Your task to perform on an android device: Show me productivity apps on the Play Store Image 0: 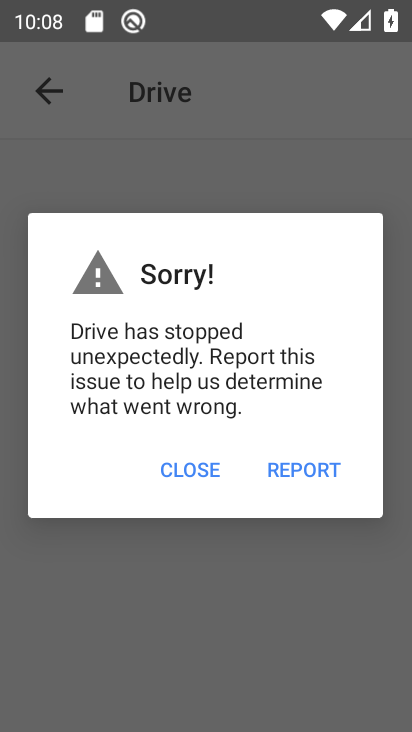
Step 0: press home button
Your task to perform on an android device: Show me productivity apps on the Play Store Image 1: 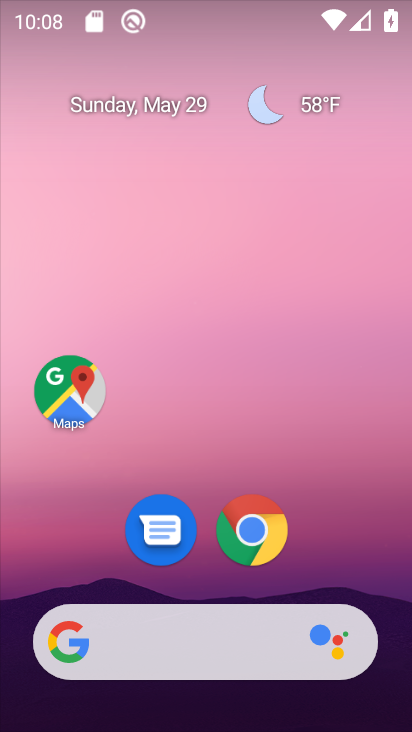
Step 1: drag from (167, 635) to (277, 69)
Your task to perform on an android device: Show me productivity apps on the Play Store Image 2: 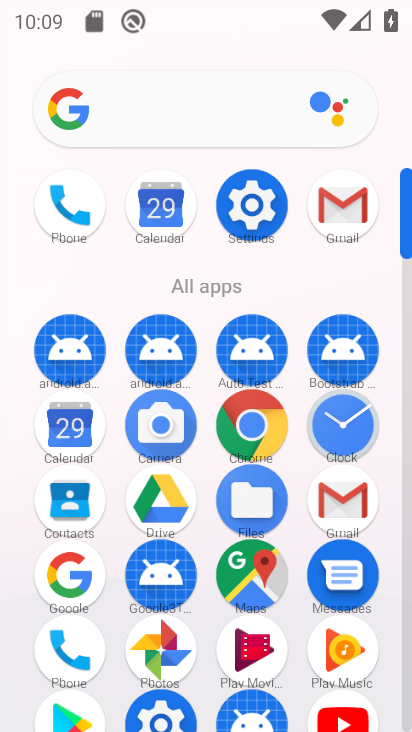
Step 2: drag from (206, 625) to (238, 140)
Your task to perform on an android device: Show me productivity apps on the Play Store Image 3: 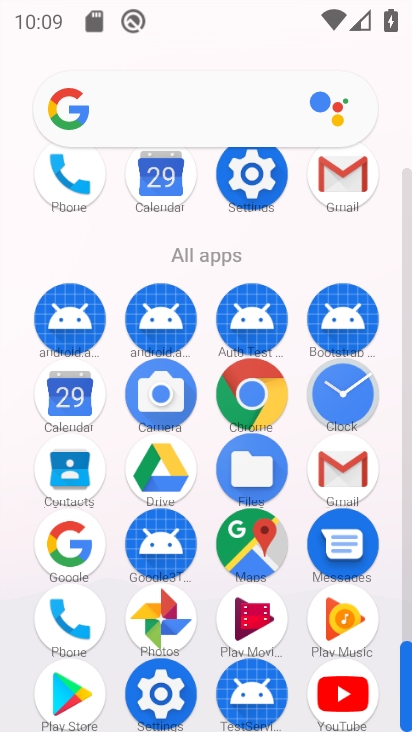
Step 3: click (74, 683)
Your task to perform on an android device: Show me productivity apps on the Play Store Image 4: 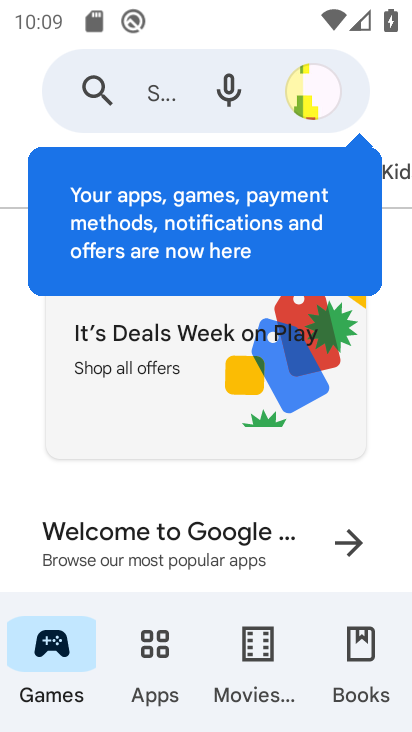
Step 4: click (151, 646)
Your task to perform on an android device: Show me productivity apps on the Play Store Image 5: 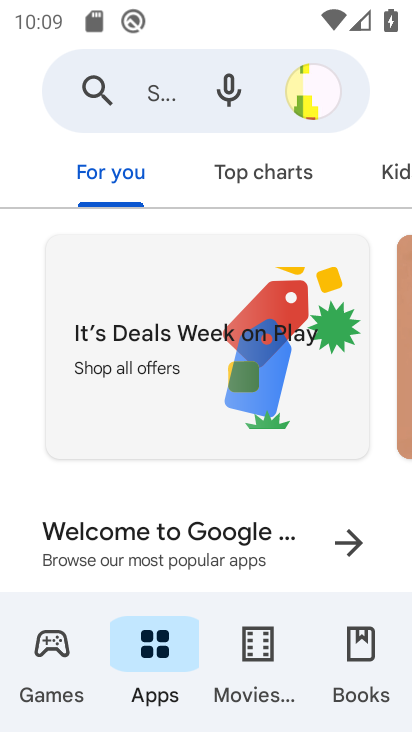
Step 5: drag from (375, 189) to (146, 215)
Your task to perform on an android device: Show me productivity apps on the Play Store Image 6: 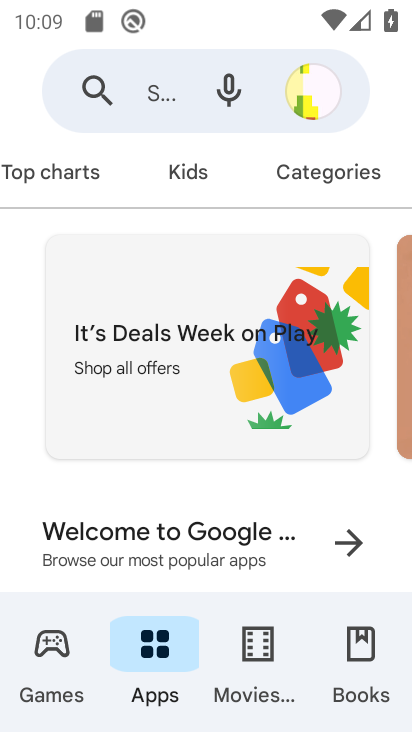
Step 6: click (330, 166)
Your task to perform on an android device: Show me productivity apps on the Play Store Image 7: 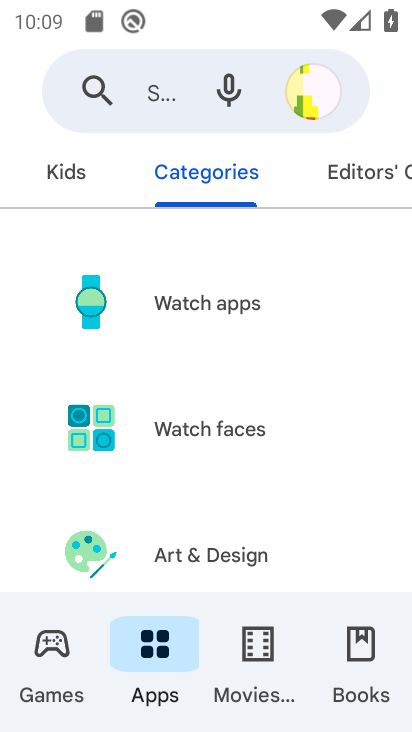
Step 7: drag from (215, 467) to (174, 26)
Your task to perform on an android device: Show me productivity apps on the Play Store Image 8: 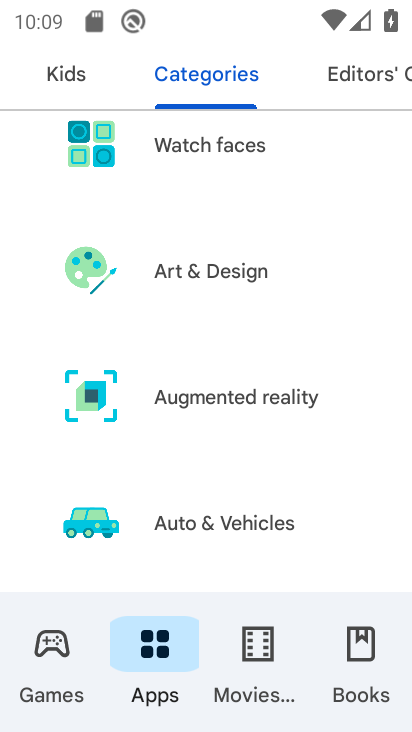
Step 8: drag from (172, 523) to (175, 20)
Your task to perform on an android device: Show me productivity apps on the Play Store Image 9: 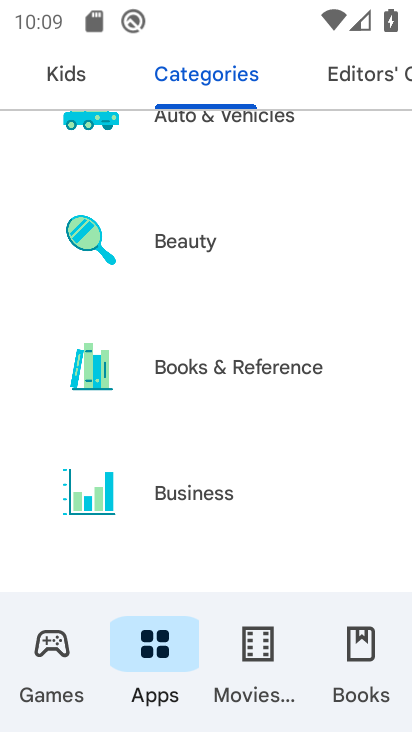
Step 9: drag from (188, 544) to (281, 9)
Your task to perform on an android device: Show me productivity apps on the Play Store Image 10: 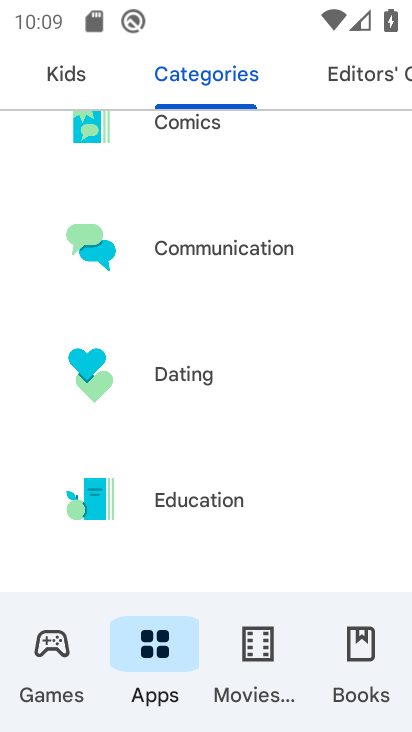
Step 10: drag from (157, 511) to (204, 0)
Your task to perform on an android device: Show me productivity apps on the Play Store Image 11: 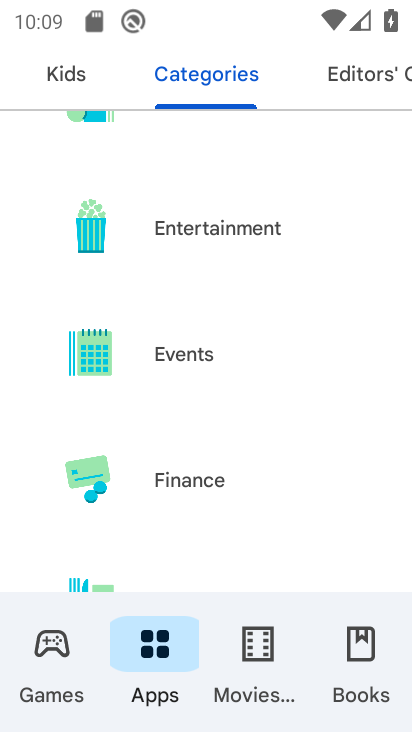
Step 11: drag from (176, 509) to (206, 34)
Your task to perform on an android device: Show me productivity apps on the Play Store Image 12: 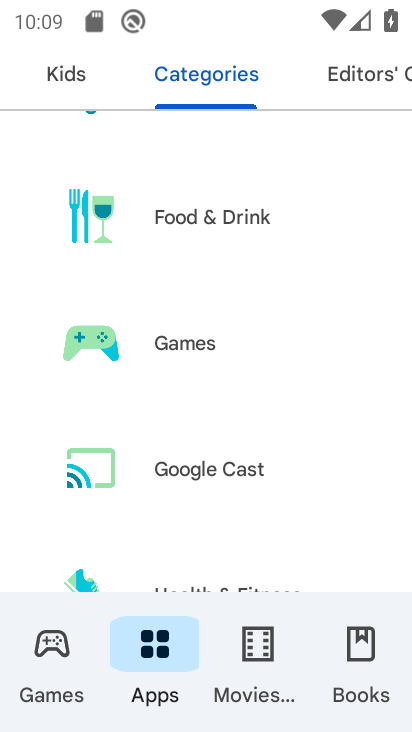
Step 12: drag from (174, 483) to (158, 8)
Your task to perform on an android device: Show me productivity apps on the Play Store Image 13: 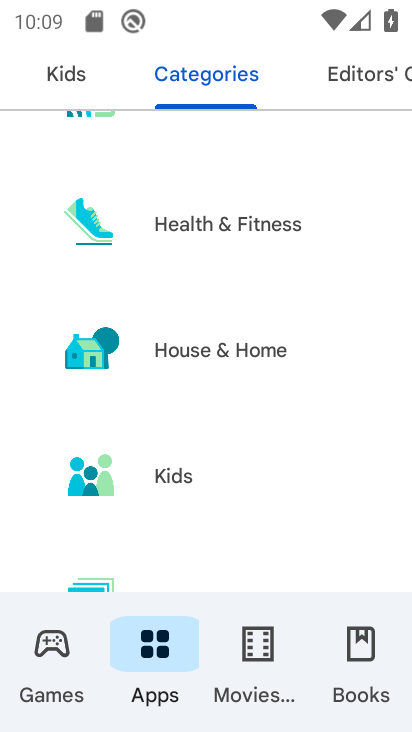
Step 13: drag from (166, 504) to (86, 20)
Your task to perform on an android device: Show me productivity apps on the Play Store Image 14: 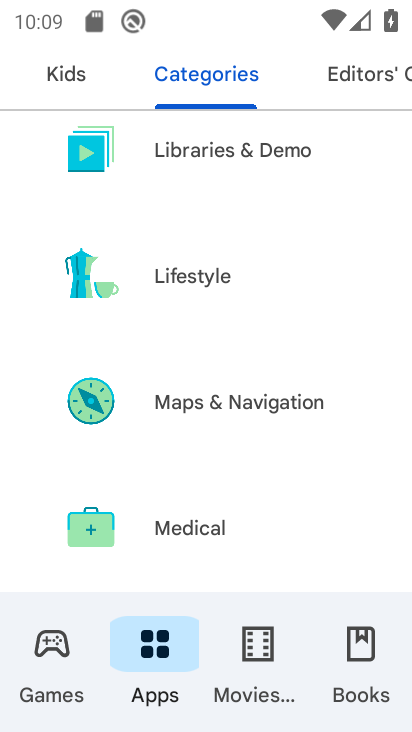
Step 14: drag from (177, 465) to (156, 52)
Your task to perform on an android device: Show me productivity apps on the Play Store Image 15: 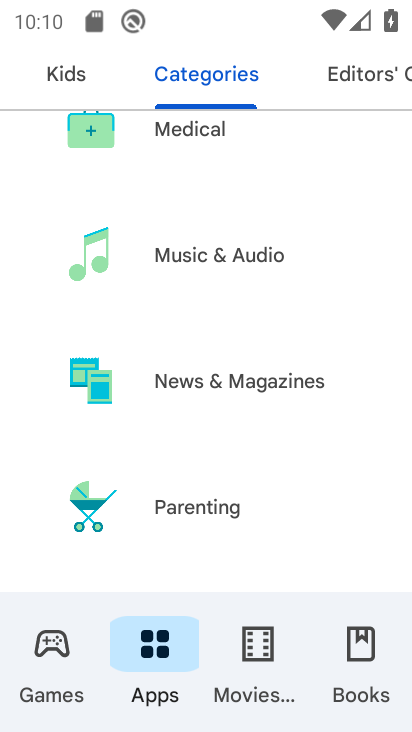
Step 15: drag from (176, 528) to (253, 110)
Your task to perform on an android device: Show me productivity apps on the Play Store Image 16: 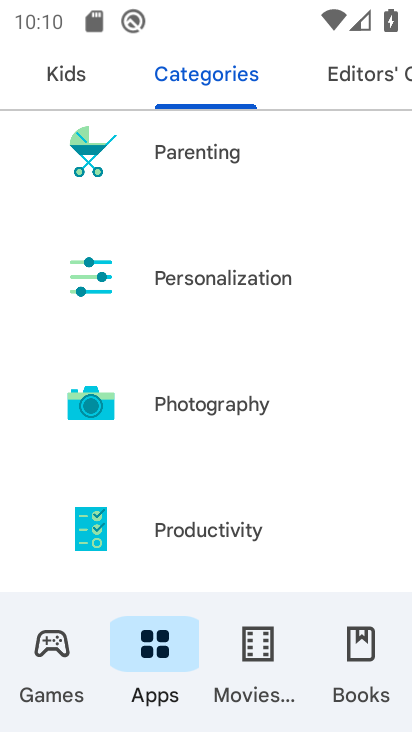
Step 16: click (156, 533)
Your task to perform on an android device: Show me productivity apps on the Play Store Image 17: 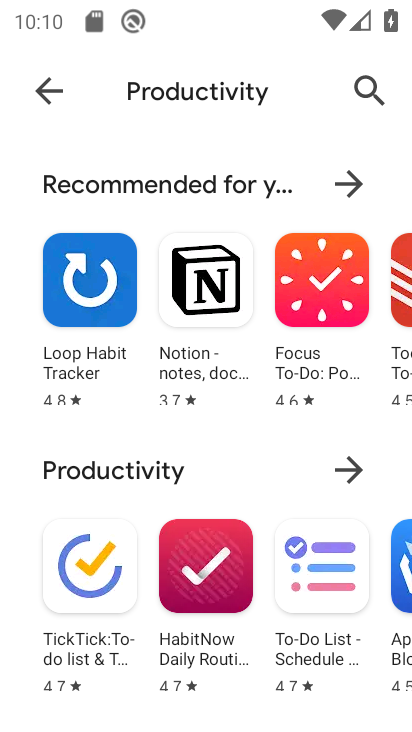
Step 17: task complete